Your task to perform on an android device: turn on location history Image 0: 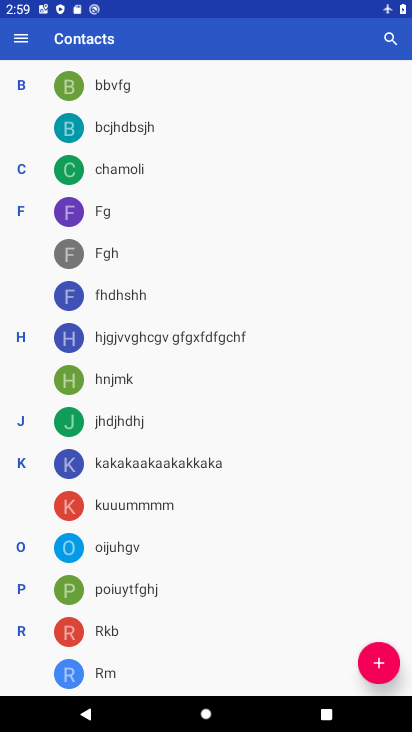
Step 0: press home button
Your task to perform on an android device: turn on location history Image 1: 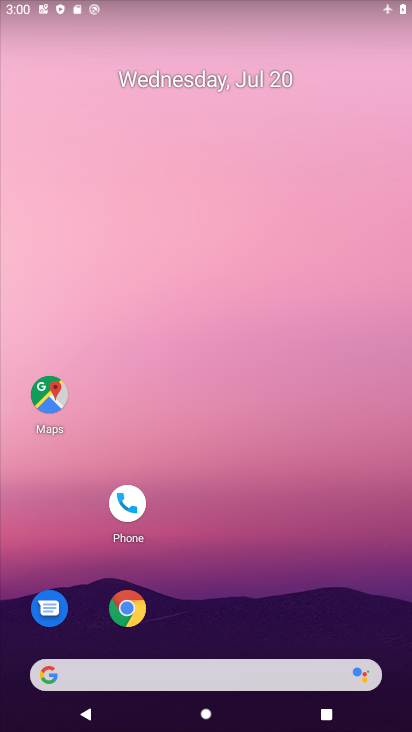
Step 1: drag from (251, 609) to (261, 51)
Your task to perform on an android device: turn on location history Image 2: 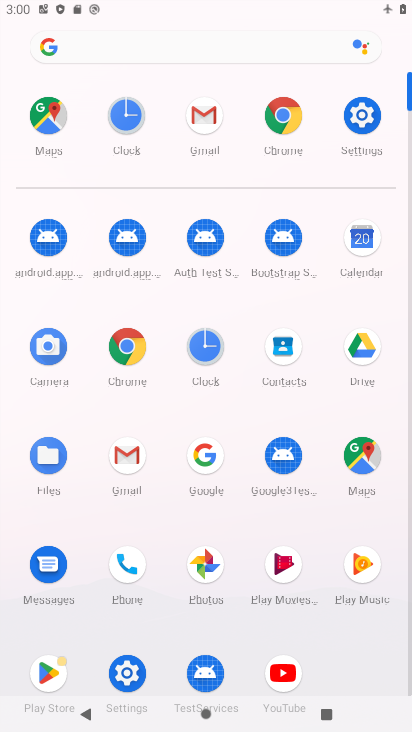
Step 2: click (354, 108)
Your task to perform on an android device: turn on location history Image 3: 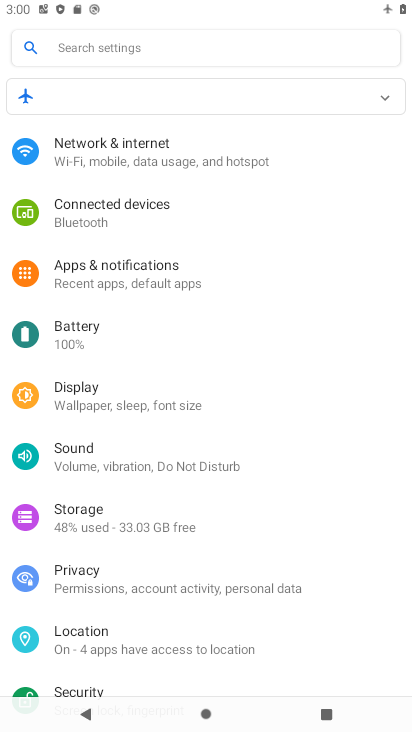
Step 3: click (148, 633)
Your task to perform on an android device: turn on location history Image 4: 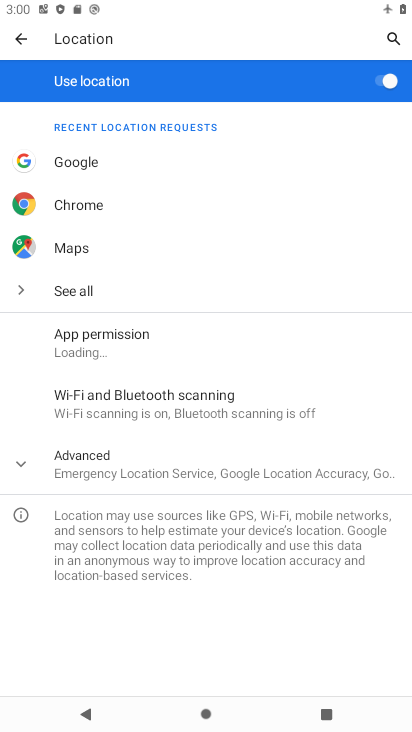
Step 4: click (146, 461)
Your task to perform on an android device: turn on location history Image 5: 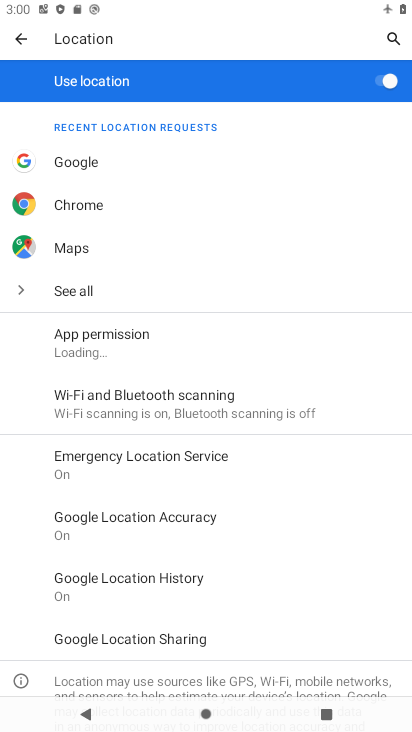
Step 5: click (178, 588)
Your task to perform on an android device: turn on location history Image 6: 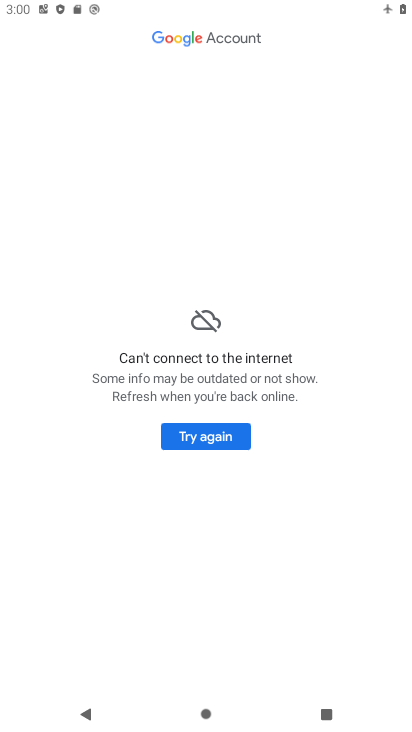
Step 6: task complete